Your task to perform on an android device: Open Chrome and go to the settings page Image 0: 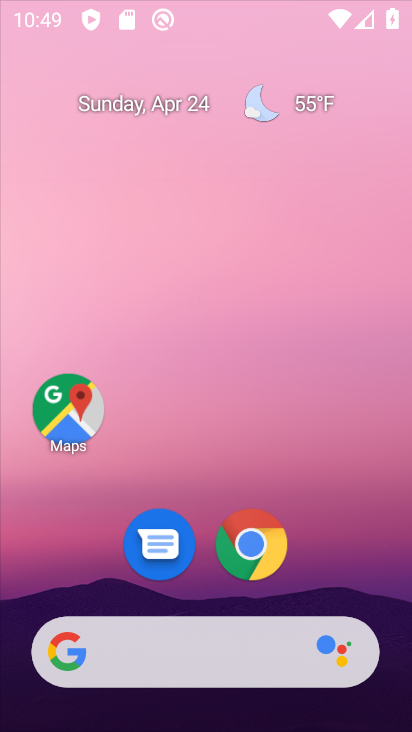
Step 0: drag from (318, 479) to (397, 85)
Your task to perform on an android device: Open Chrome and go to the settings page Image 1: 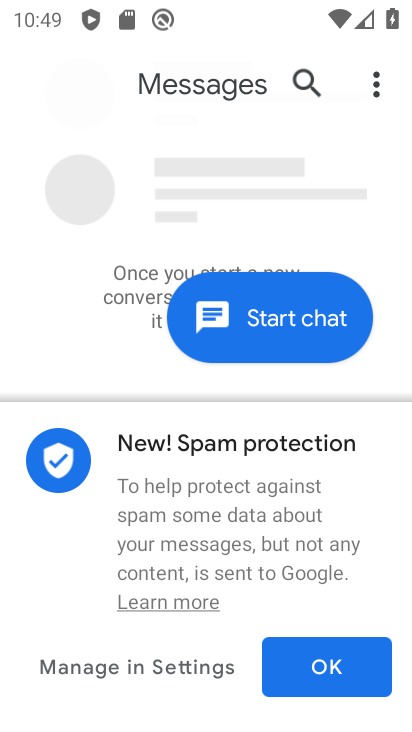
Step 1: press home button
Your task to perform on an android device: Open Chrome and go to the settings page Image 2: 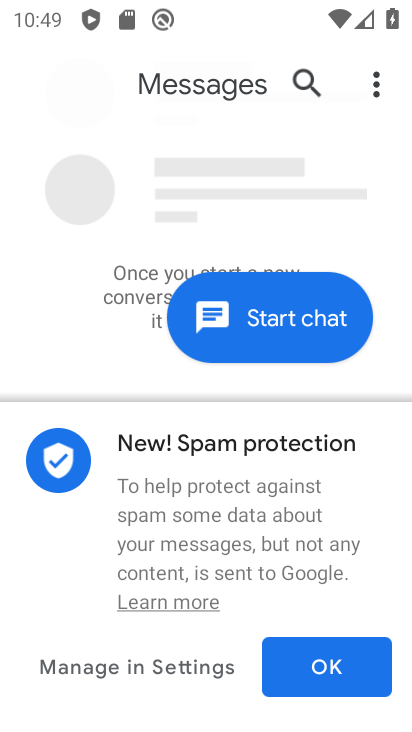
Step 2: press home button
Your task to perform on an android device: Open Chrome and go to the settings page Image 3: 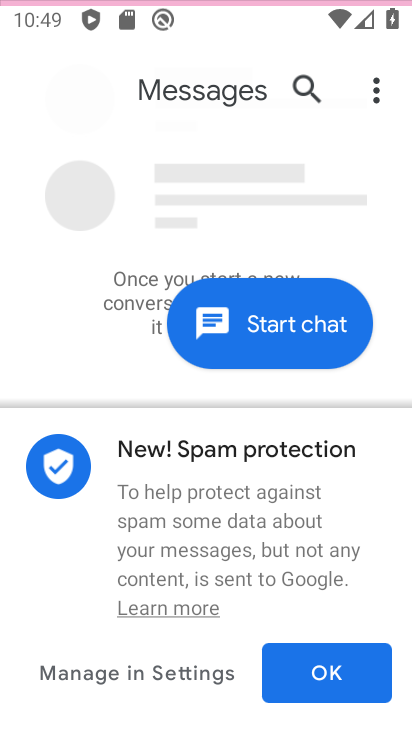
Step 3: drag from (397, 85) to (404, 291)
Your task to perform on an android device: Open Chrome and go to the settings page Image 4: 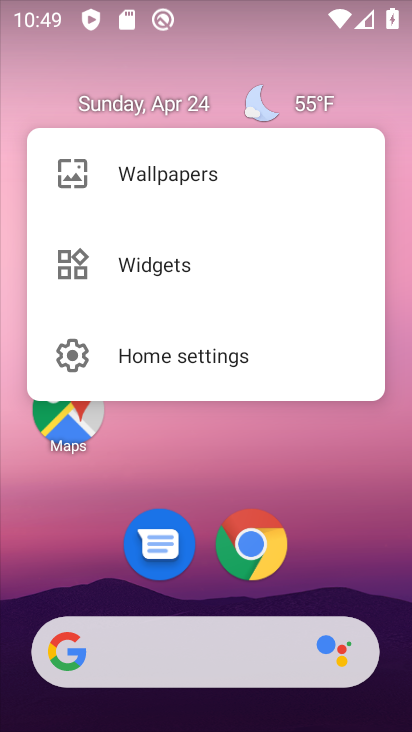
Step 4: click (264, 562)
Your task to perform on an android device: Open Chrome and go to the settings page Image 5: 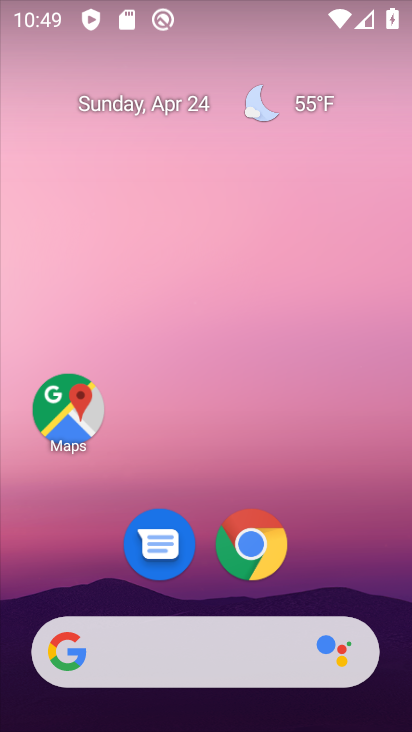
Step 5: click (254, 546)
Your task to perform on an android device: Open Chrome and go to the settings page Image 6: 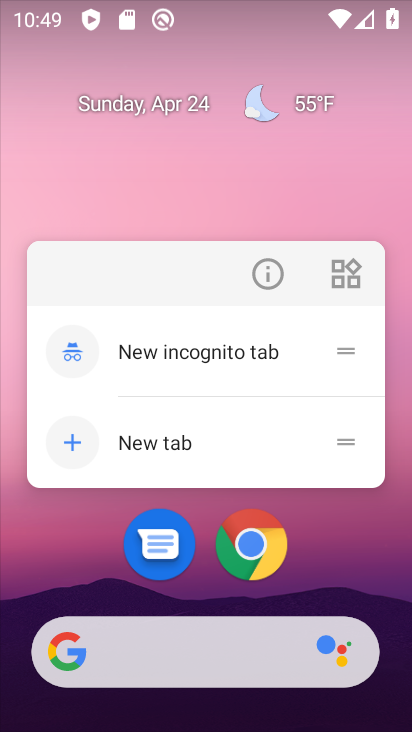
Step 6: click (254, 546)
Your task to perform on an android device: Open Chrome and go to the settings page Image 7: 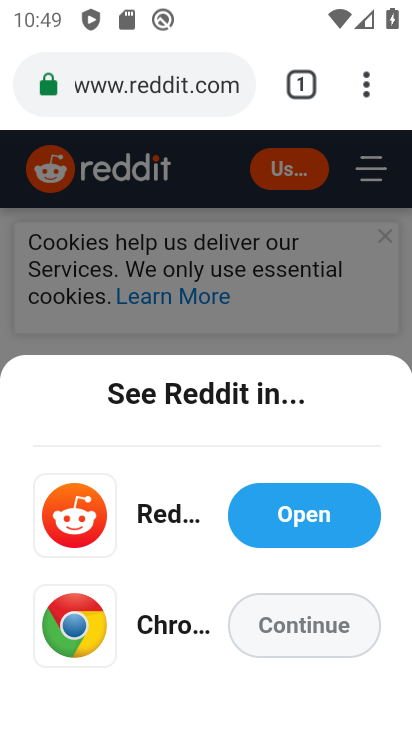
Step 7: task complete